Your task to perform on an android device: turn off sleep mode Image 0: 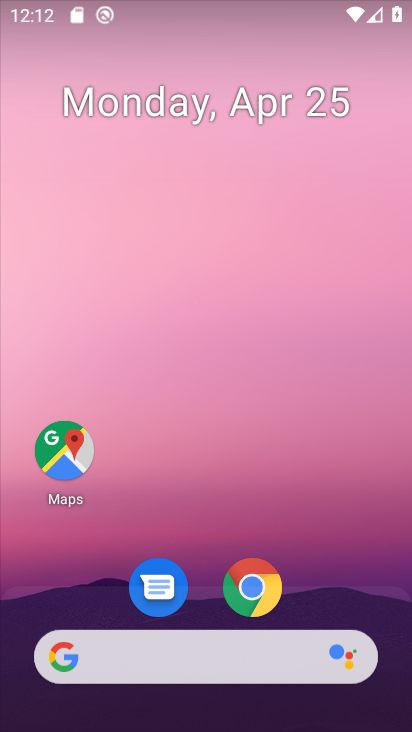
Step 0: drag from (324, 538) to (278, 153)
Your task to perform on an android device: turn off sleep mode Image 1: 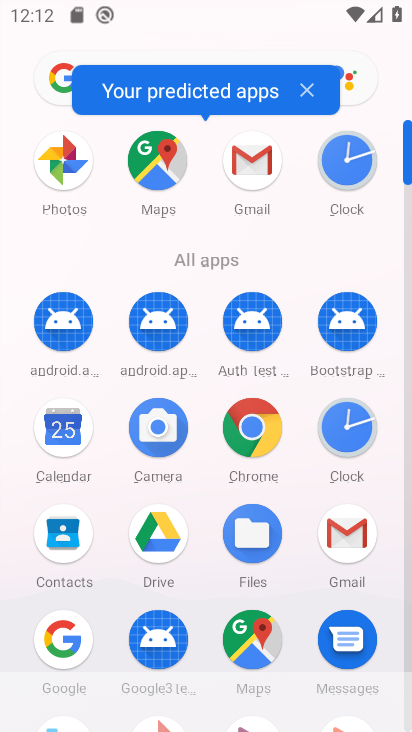
Step 1: click (411, 635)
Your task to perform on an android device: turn off sleep mode Image 2: 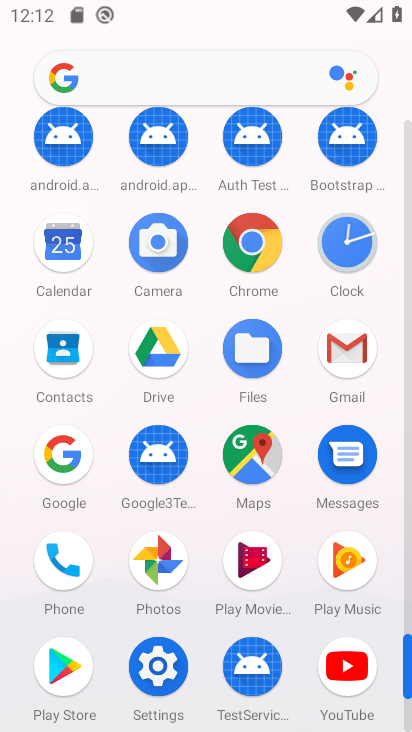
Step 2: click (157, 656)
Your task to perform on an android device: turn off sleep mode Image 3: 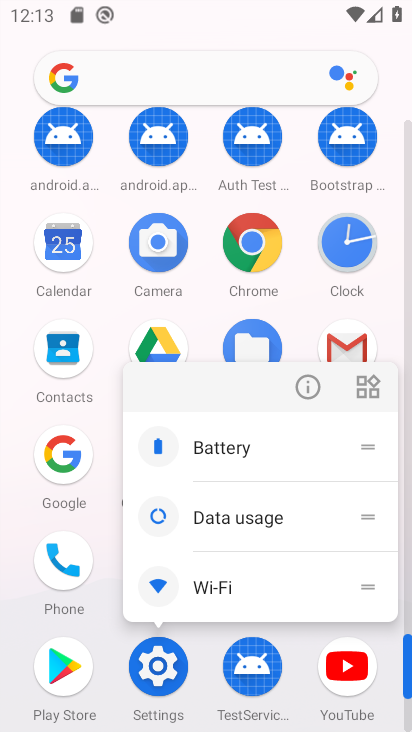
Step 3: click (157, 656)
Your task to perform on an android device: turn off sleep mode Image 4: 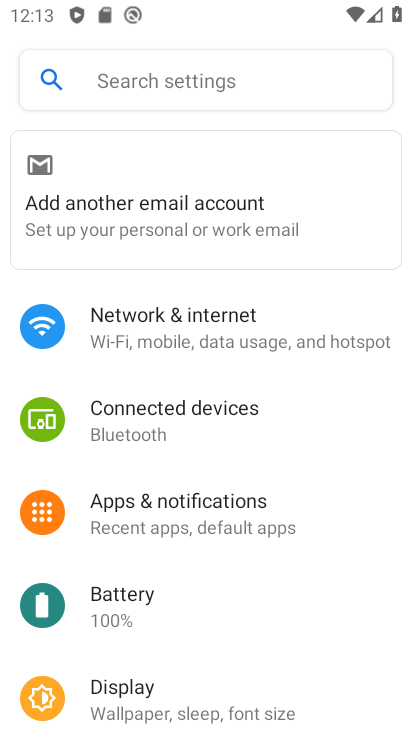
Step 4: click (240, 700)
Your task to perform on an android device: turn off sleep mode Image 5: 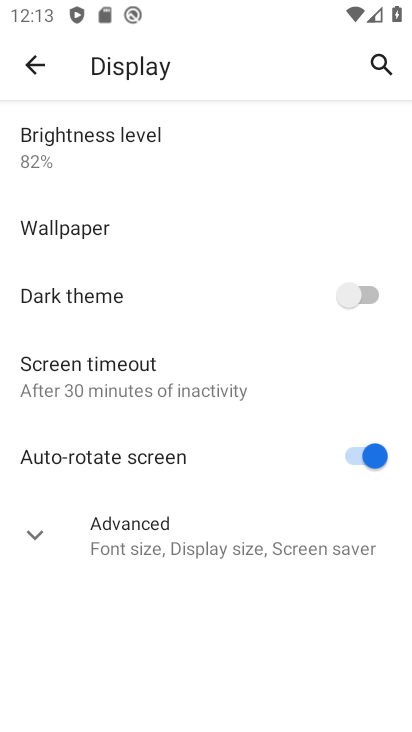
Step 5: click (285, 543)
Your task to perform on an android device: turn off sleep mode Image 6: 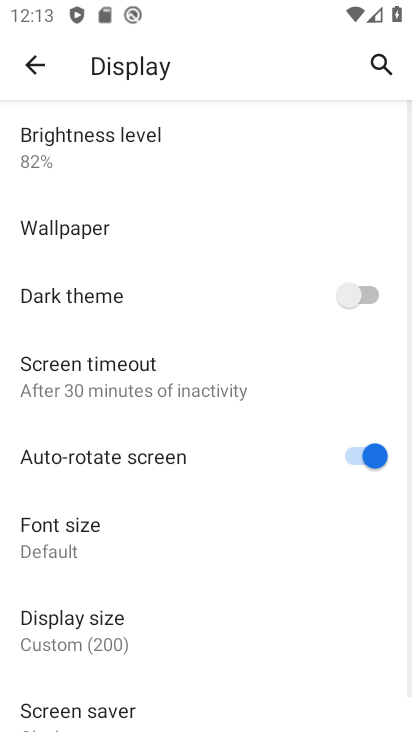
Step 6: task complete